Your task to perform on an android device: What's on my calendar tomorrow? Image 0: 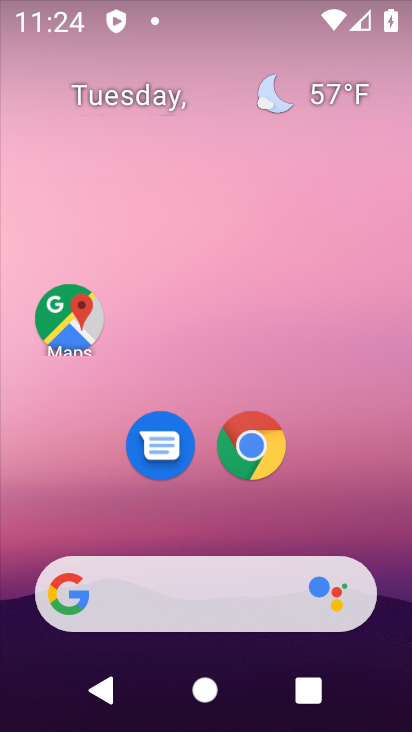
Step 0: drag from (381, 535) to (350, 129)
Your task to perform on an android device: What's on my calendar tomorrow? Image 1: 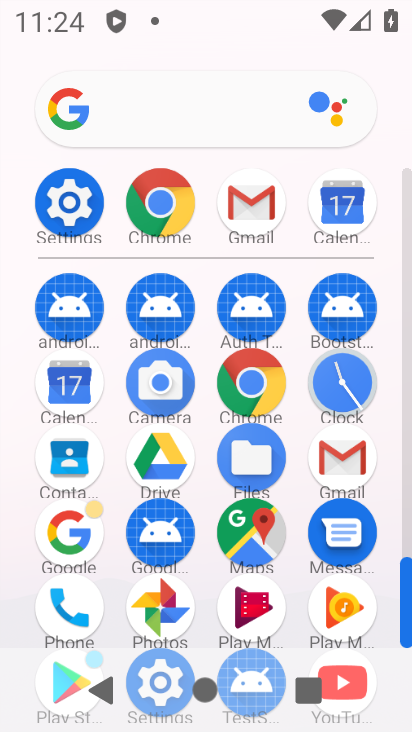
Step 1: click (336, 204)
Your task to perform on an android device: What's on my calendar tomorrow? Image 2: 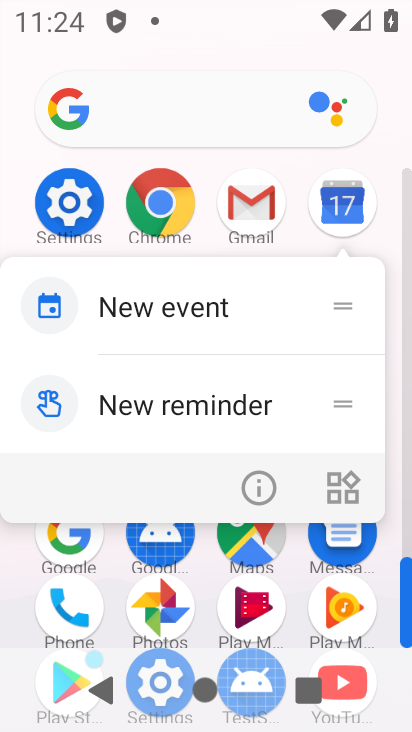
Step 2: click (329, 194)
Your task to perform on an android device: What's on my calendar tomorrow? Image 3: 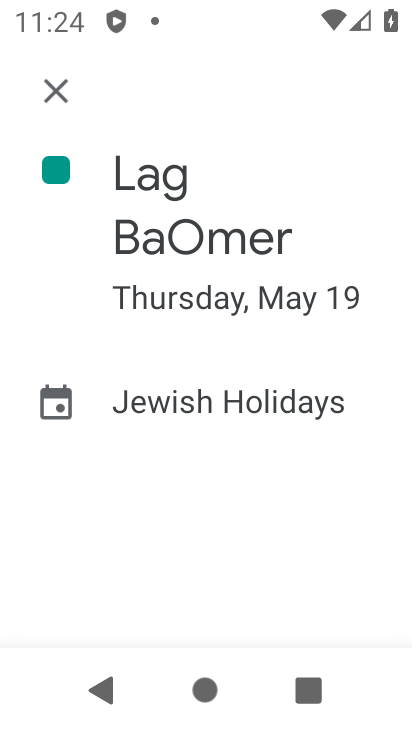
Step 3: click (60, 88)
Your task to perform on an android device: What's on my calendar tomorrow? Image 4: 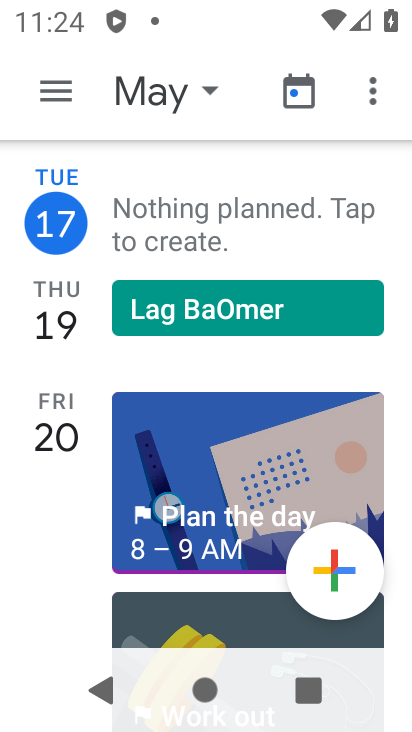
Step 4: click (208, 92)
Your task to perform on an android device: What's on my calendar tomorrow? Image 5: 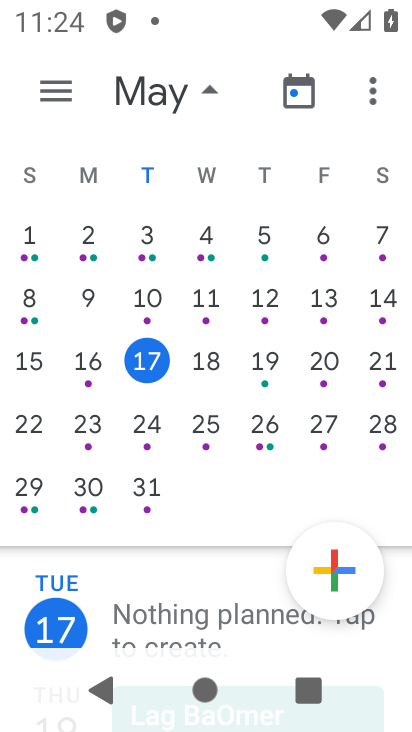
Step 5: click (269, 362)
Your task to perform on an android device: What's on my calendar tomorrow? Image 6: 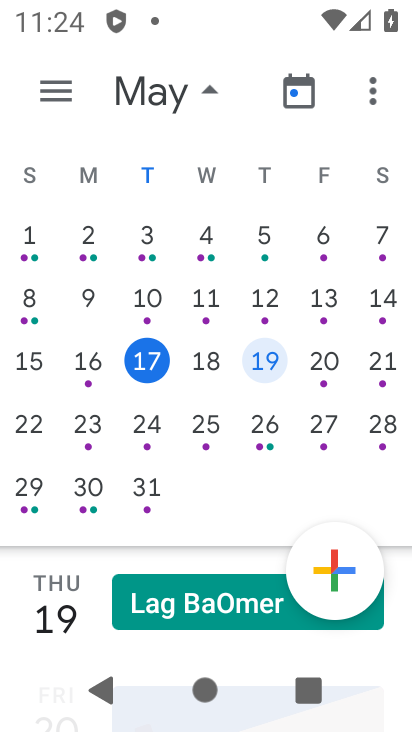
Step 6: task complete